Your task to perform on an android device: Open CNN.com Image 0: 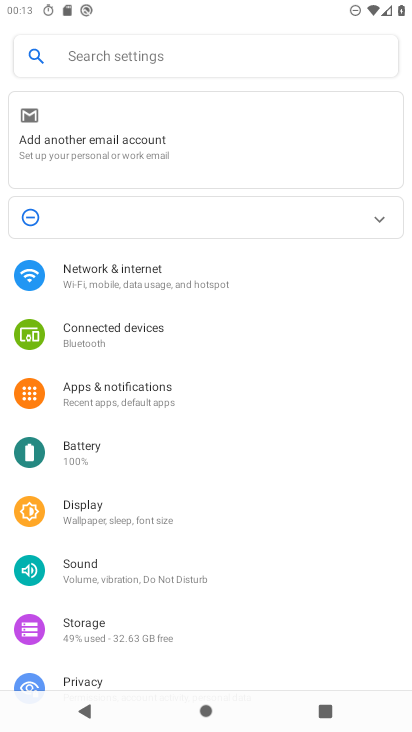
Step 0: press home button
Your task to perform on an android device: Open CNN.com Image 1: 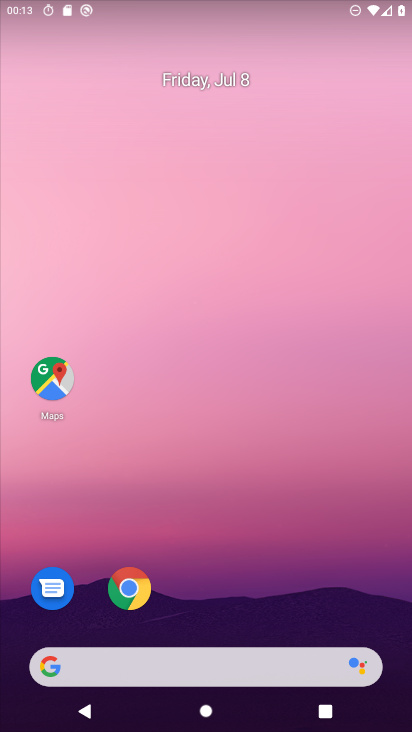
Step 1: click (132, 587)
Your task to perform on an android device: Open CNN.com Image 2: 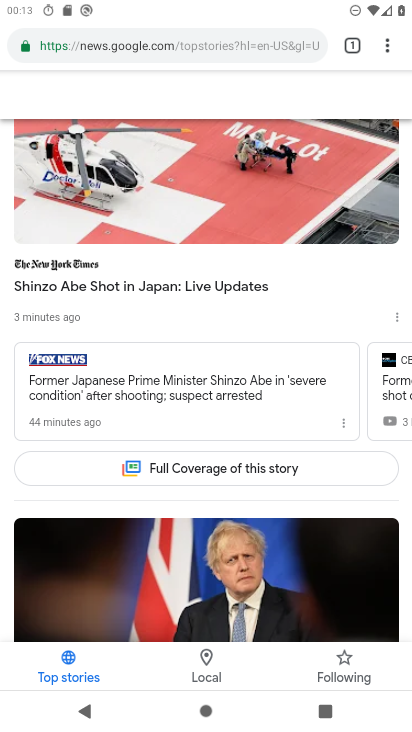
Step 2: click (216, 47)
Your task to perform on an android device: Open CNN.com Image 3: 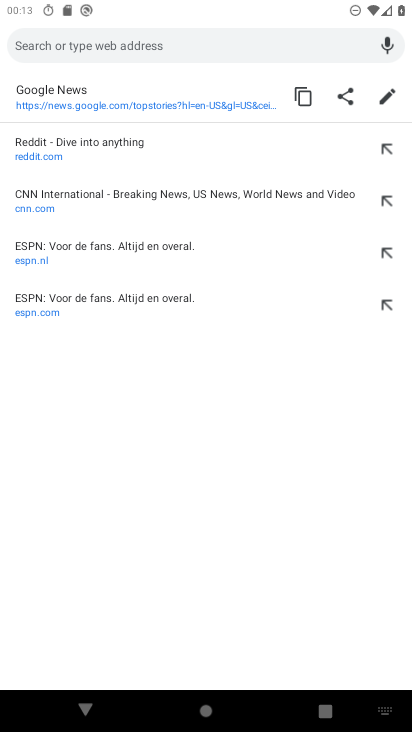
Step 3: click (36, 204)
Your task to perform on an android device: Open CNN.com Image 4: 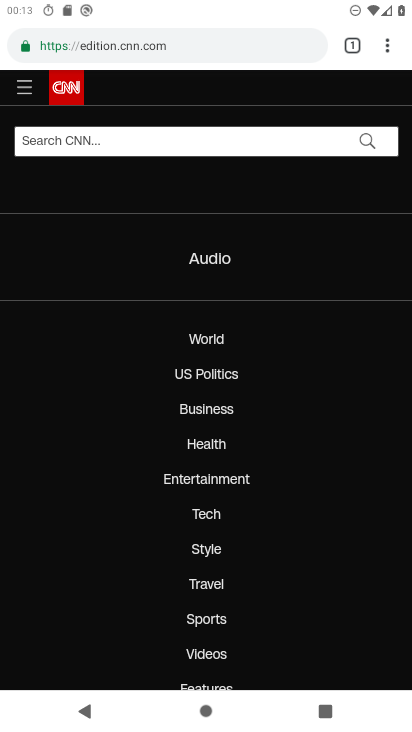
Step 4: task complete